Your task to perform on an android device: open app "ZOOM Cloud Meetings" (install if not already installed) and go to login screen Image 0: 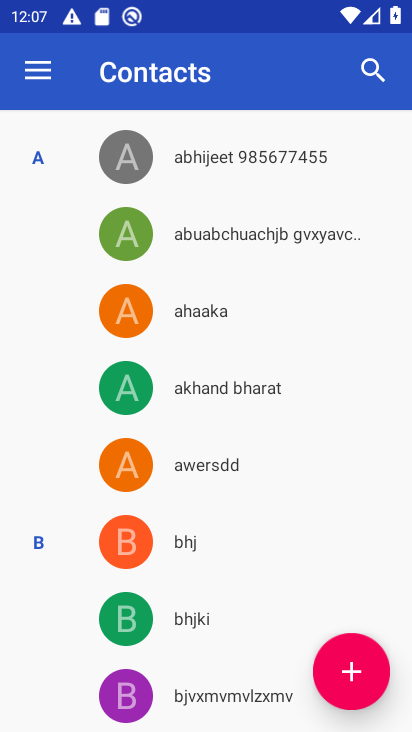
Step 0: press home button
Your task to perform on an android device: open app "ZOOM Cloud Meetings" (install if not already installed) and go to login screen Image 1: 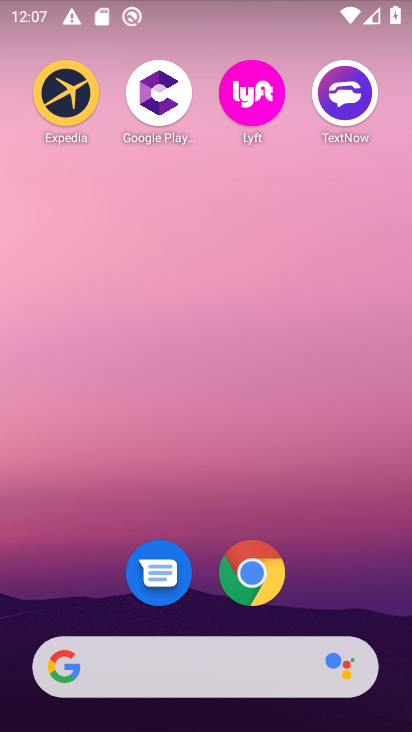
Step 1: drag from (200, 508) to (230, 130)
Your task to perform on an android device: open app "ZOOM Cloud Meetings" (install if not already installed) and go to login screen Image 2: 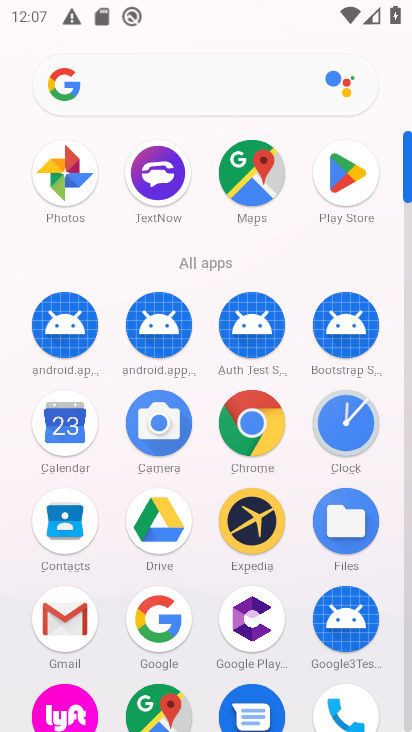
Step 2: click (335, 183)
Your task to perform on an android device: open app "ZOOM Cloud Meetings" (install if not already installed) and go to login screen Image 3: 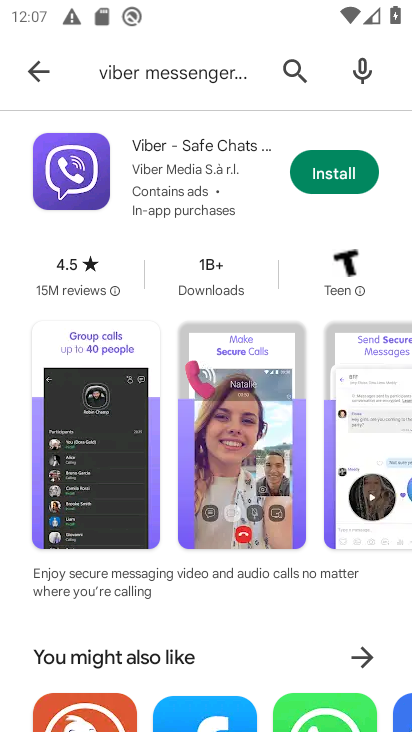
Step 3: click (295, 68)
Your task to perform on an android device: open app "ZOOM Cloud Meetings" (install if not already installed) and go to login screen Image 4: 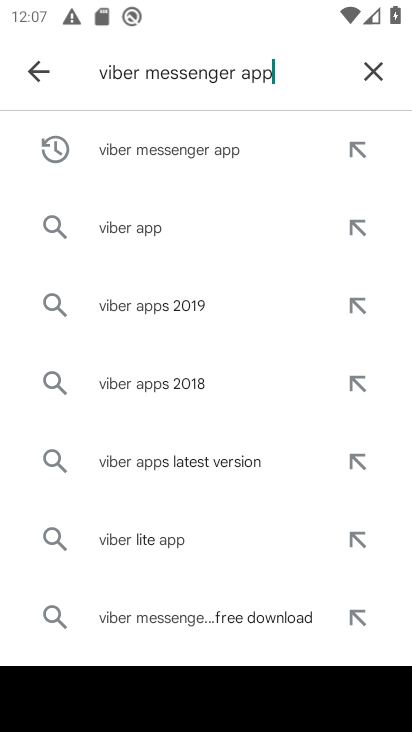
Step 4: click (411, 71)
Your task to perform on an android device: open app "ZOOM Cloud Meetings" (install if not already installed) and go to login screen Image 5: 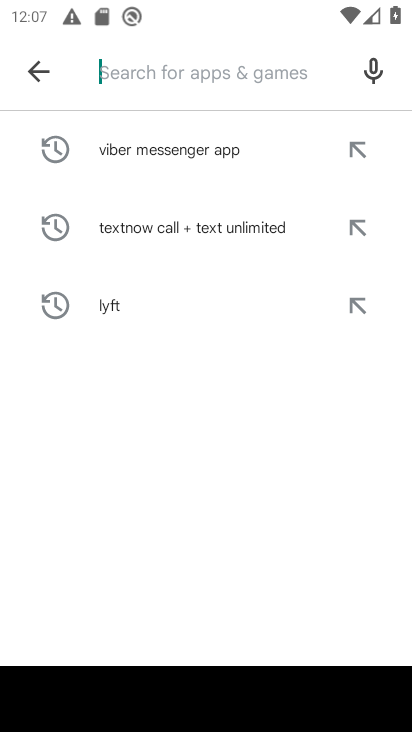
Step 5: click (382, 63)
Your task to perform on an android device: open app "ZOOM Cloud Meetings" (install if not already installed) and go to login screen Image 6: 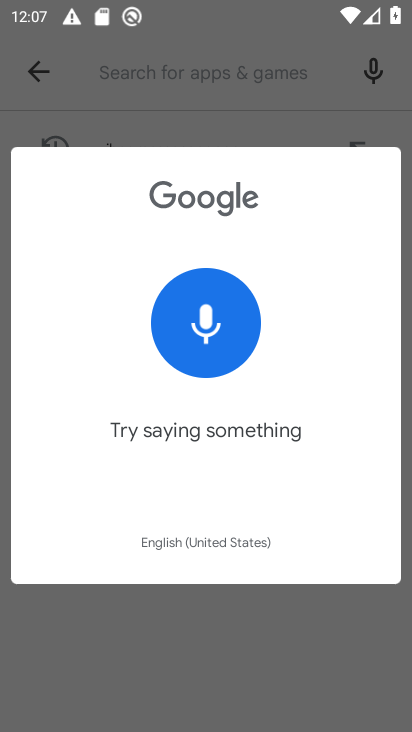
Step 6: click (203, 89)
Your task to perform on an android device: open app "ZOOM Cloud Meetings" (install if not already installed) and go to login screen Image 7: 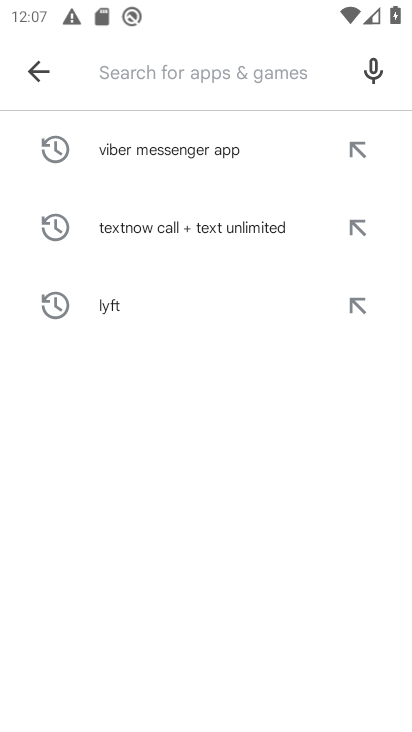
Step 7: type "ZOOM Cloud Meetings"
Your task to perform on an android device: open app "ZOOM Cloud Meetings" (install if not already installed) and go to login screen Image 8: 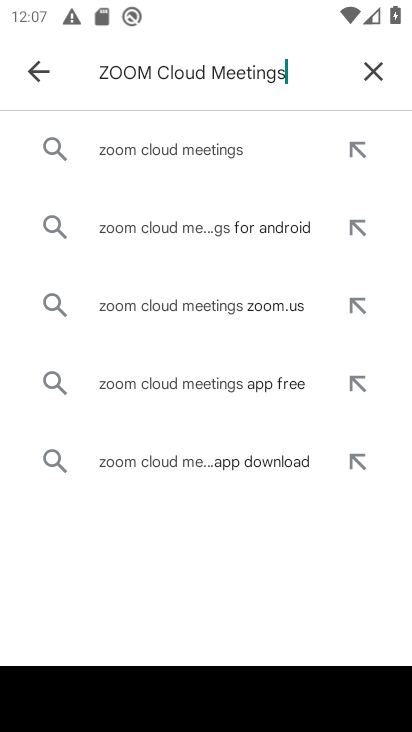
Step 8: click (207, 157)
Your task to perform on an android device: open app "ZOOM Cloud Meetings" (install if not already installed) and go to login screen Image 9: 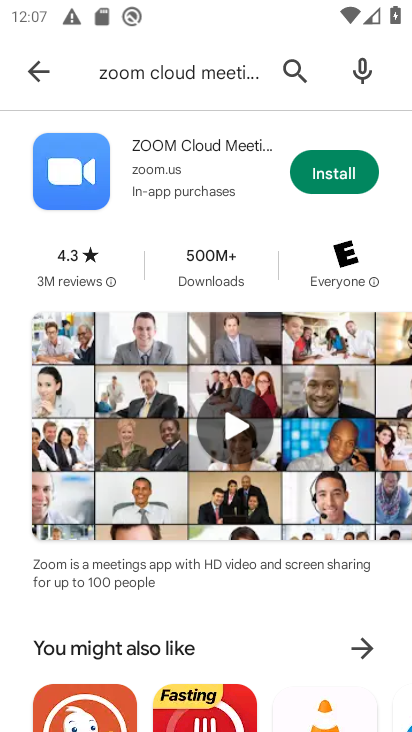
Step 9: click (326, 171)
Your task to perform on an android device: open app "ZOOM Cloud Meetings" (install if not already installed) and go to login screen Image 10: 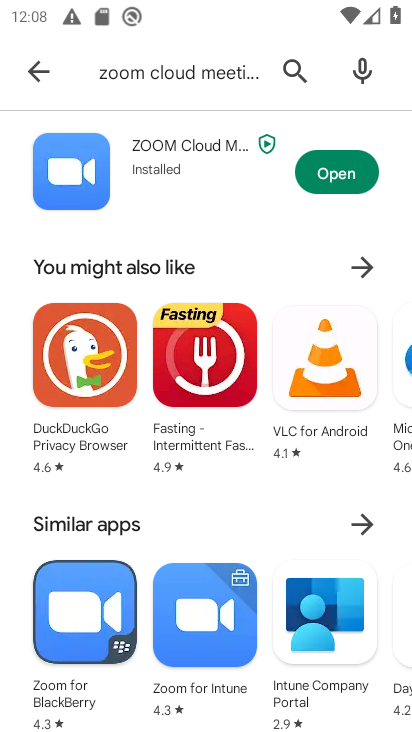
Step 10: click (326, 171)
Your task to perform on an android device: open app "ZOOM Cloud Meetings" (install if not already installed) and go to login screen Image 11: 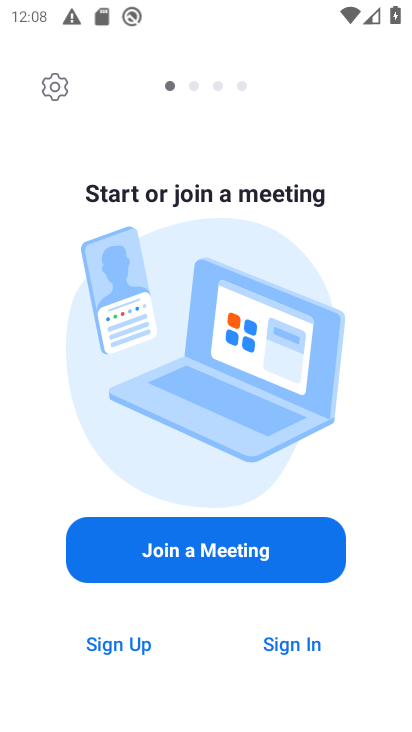
Step 11: task complete